Your task to perform on an android device: open sync settings in chrome Image 0: 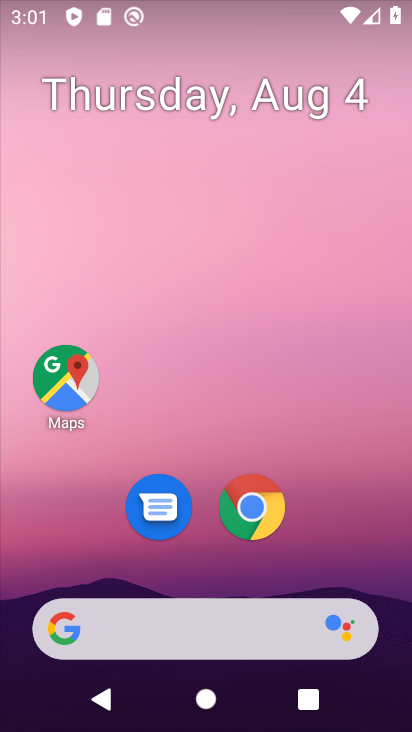
Step 0: click (257, 492)
Your task to perform on an android device: open sync settings in chrome Image 1: 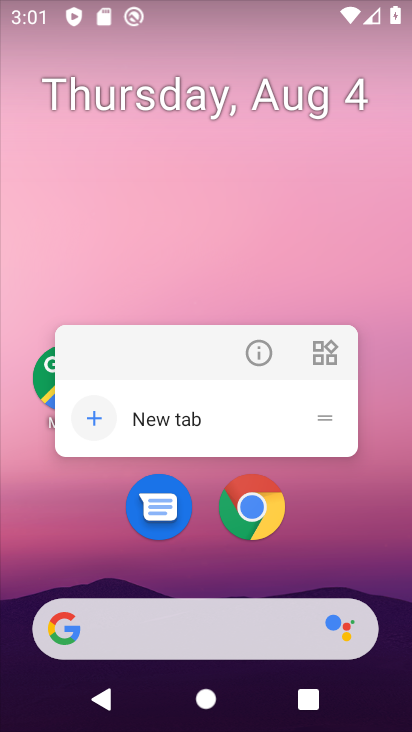
Step 1: click (236, 514)
Your task to perform on an android device: open sync settings in chrome Image 2: 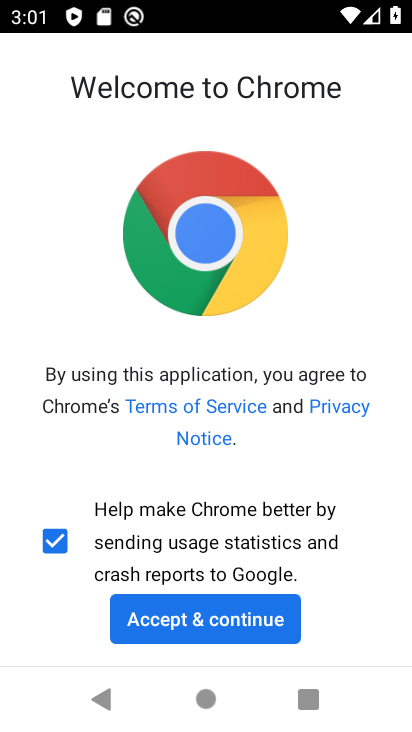
Step 2: click (222, 605)
Your task to perform on an android device: open sync settings in chrome Image 3: 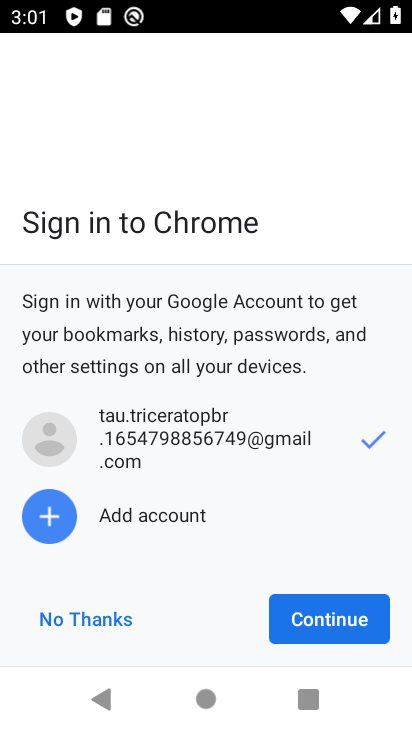
Step 3: click (328, 628)
Your task to perform on an android device: open sync settings in chrome Image 4: 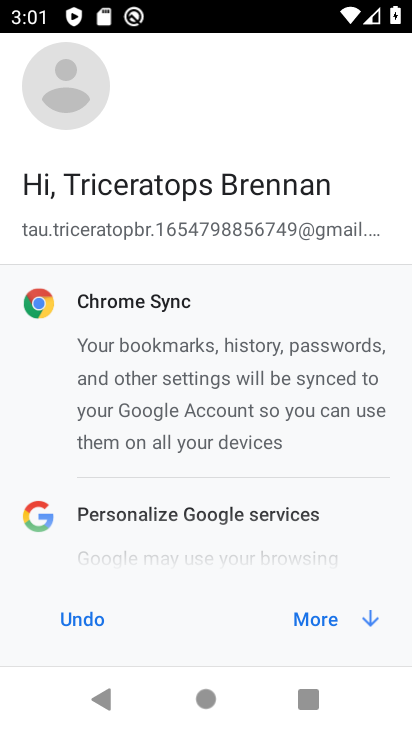
Step 4: click (322, 632)
Your task to perform on an android device: open sync settings in chrome Image 5: 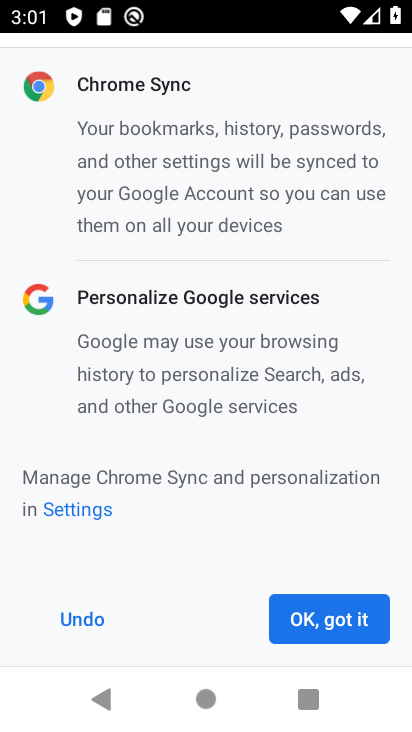
Step 5: click (324, 622)
Your task to perform on an android device: open sync settings in chrome Image 6: 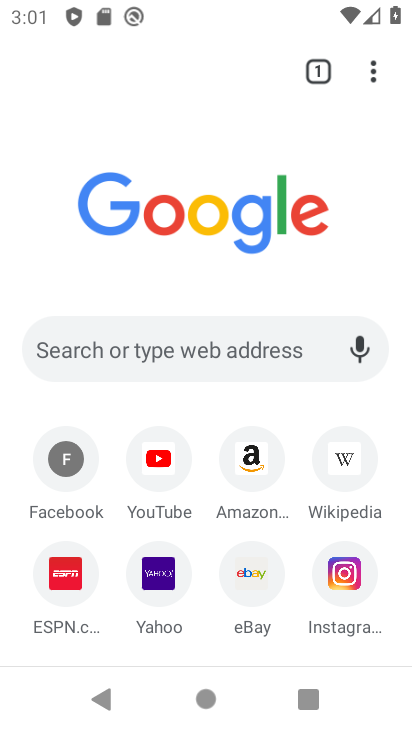
Step 6: click (367, 70)
Your task to perform on an android device: open sync settings in chrome Image 7: 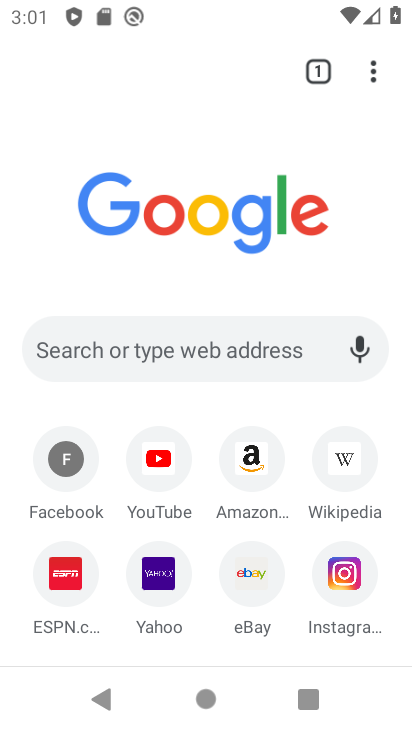
Step 7: click (375, 70)
Your task to perform on an android device: open sync settings in chrome Image 8: 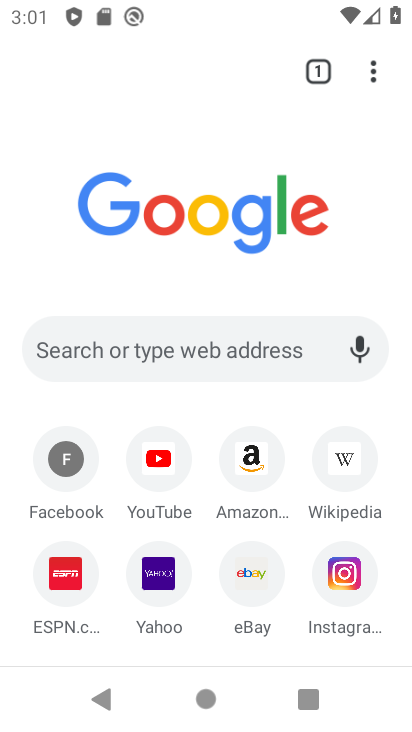
Step 8: task complete